Your task to perform on an android device: Open ESPN.com Image 0: 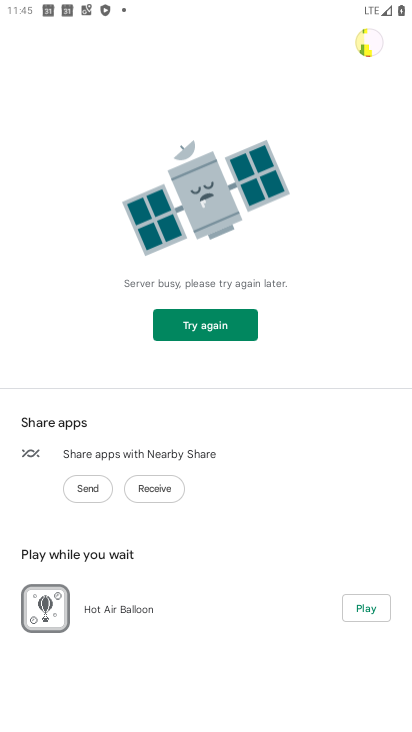
Step 0: press back button
Your task to perform on an android device: Open ESPN.com Image 1: 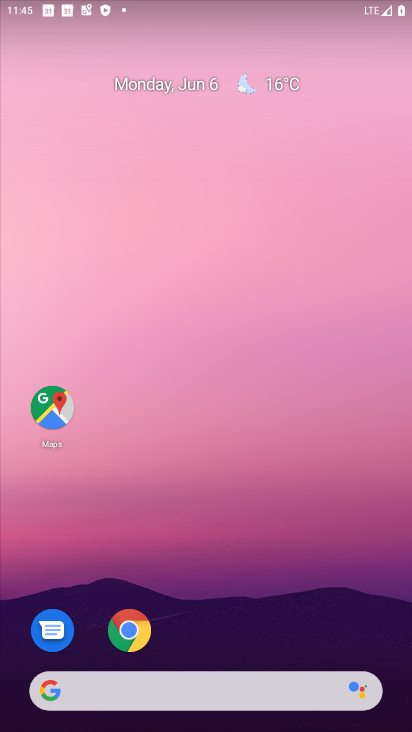
Step 1: click (132, 642)
Your task to perform on an android device: Open ESPN.com Image 2: 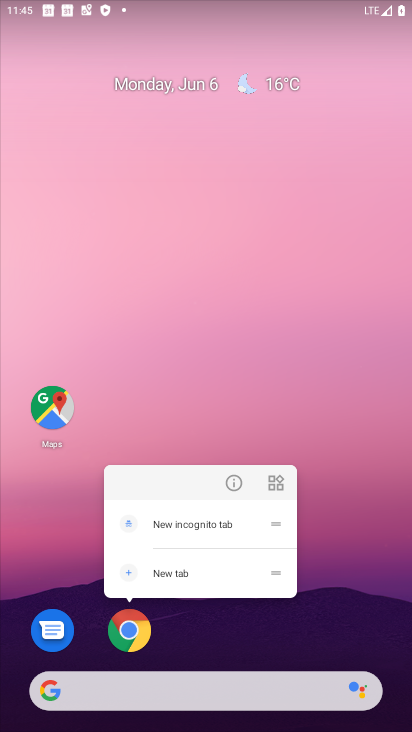
Step 2: click (130, 631)
Your task to perform on an android device: Open ESPN.com Image 3: 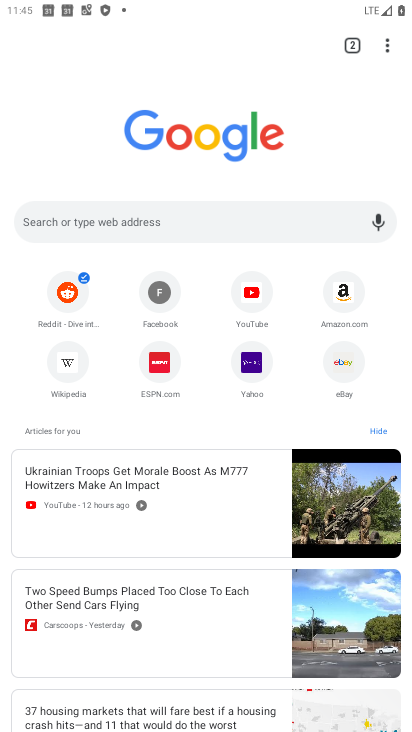
Step 3: click (145, 387)
Your task to perform on an android device: Open ESPN.com Image 4: 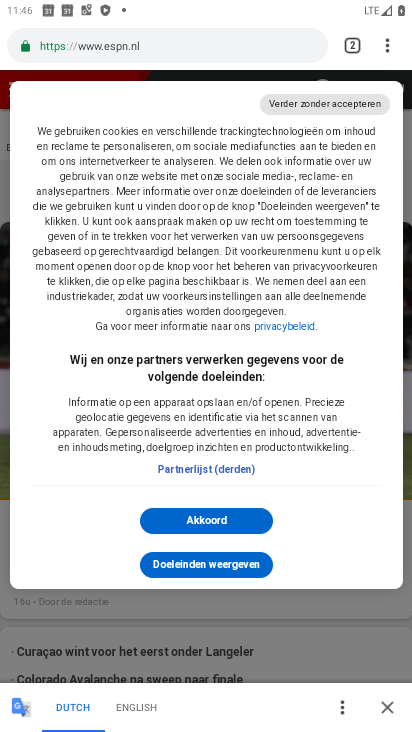
Step 4: task complete